Your task to perform on an android device: Open the calendar app, open the side menu, and click the "Day" option Image 0: 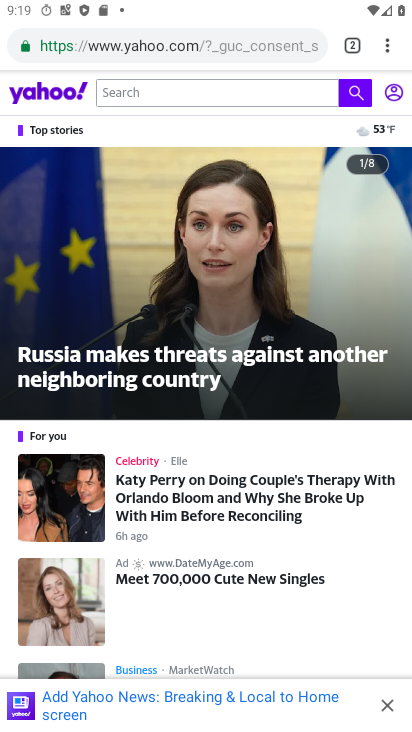
Step 0: press home button
Your task to perform on an android device: Open the calendar app, open the side menu, and click the "Day" option Image 1: 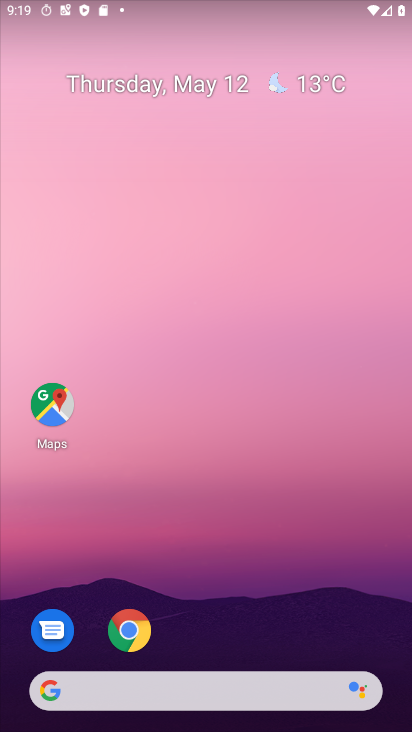
Step 1: drag from (106, 694) to (166, 225)
Your task to perform on an android device: Open the calendar app, open the side menu, and click the "Day" option Image 2: 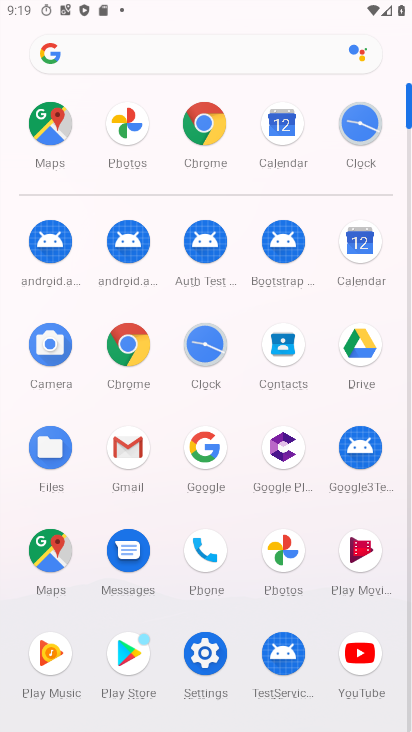
Step 2: click (366, 255)
Your task to perform on an android device: Open the calendar app, open the side menu, and click the "Day" option Image 3: 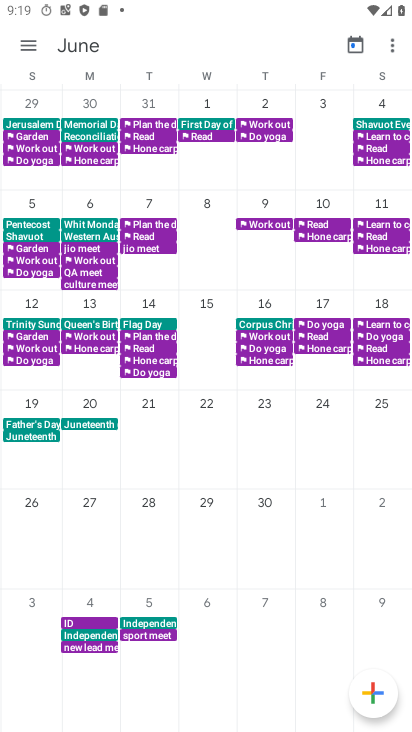
Step 3: click (26, 47)
Your task to perform on an android device: Open the calendar app, open the side menu, and click the "Day" option Image 4: 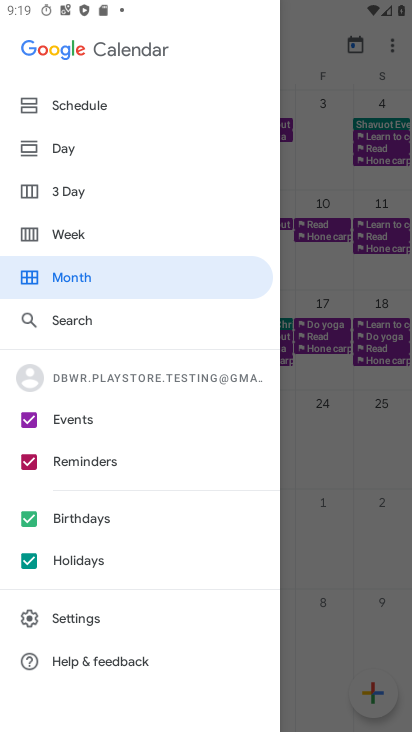
Step 4: click (69, 131)
Your task to perform on an android device: Open the calendar app, open the side menu, and click the "Day" option Image 5: 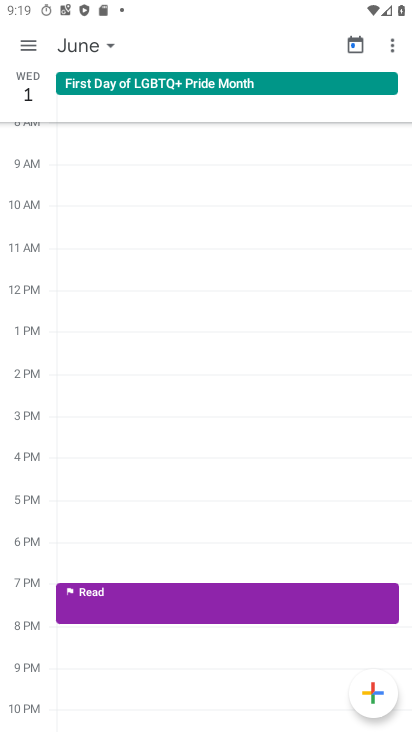
Step 5: task complete